Your task to perform on an android device: turn off priority inbox in the gmail app Image 0: 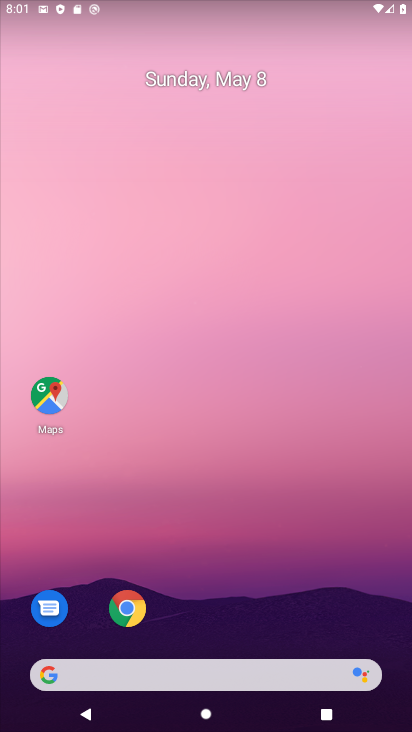
Step 0: drag from (211, 667) to (300, 139)
Your task to perform on an android device: turn off priority inbox in the gmail app Image 1: 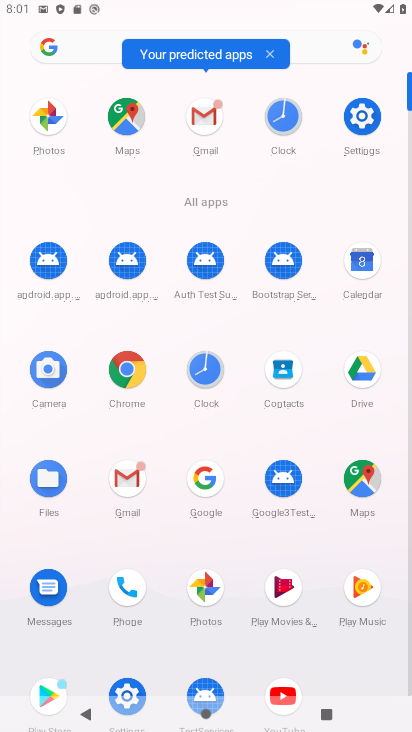
Step 1: click (209, 126)
Your task to perform on an android device: turn off priority inbox in the gmail app Image 2: 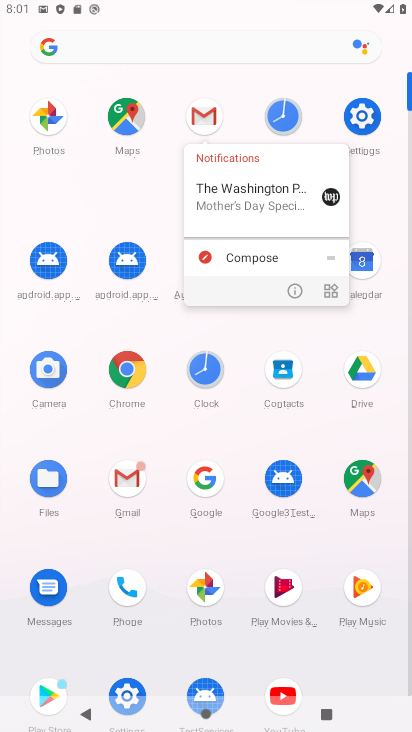
Step 2: click (209, 127)
Your task to perform on an android device: turn off priority inbox in the gmail app Image 3: 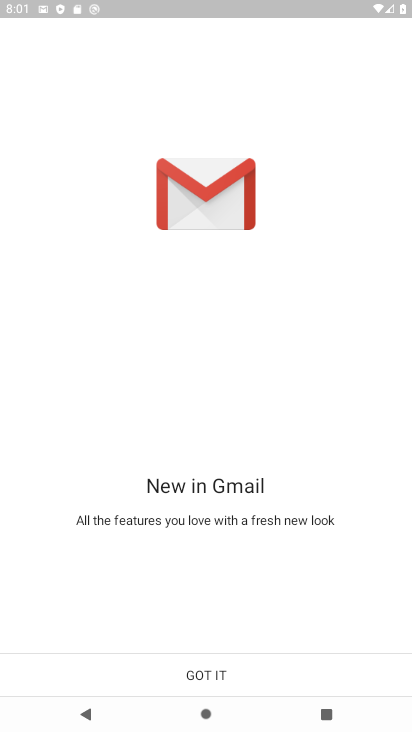
Step 3: click (220, 671)
Your task to perform on an android device: turn off priority inbox in the gmail app Image 4: 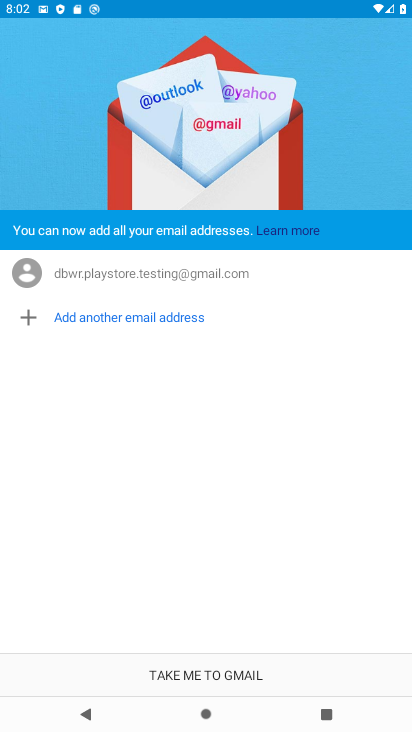
Step 4: click (241, 671)
Your task to perform on an android device: turn off priority inbox in the gmail app Image 5: 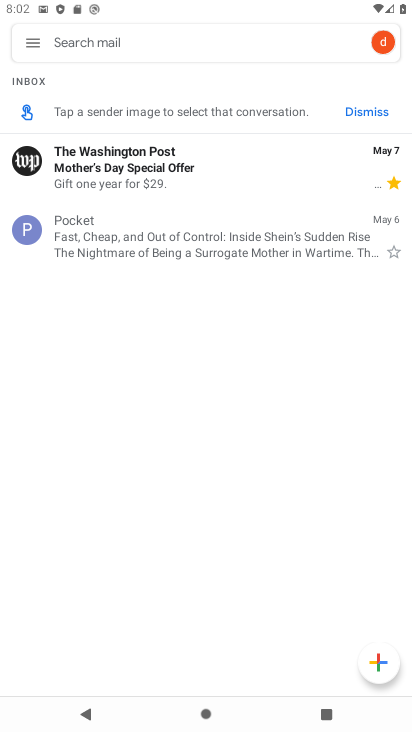
Step 5: click (28, 41)
Your task to perform on an android device: turn off priority inbox in the gmail app Image 6: 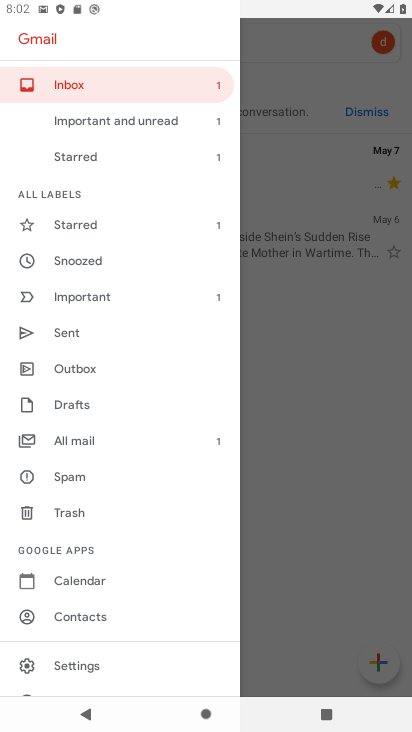
Step 6: click (83, 665)
Your task to perform on an android device: turn off priority inbox in the gmail app Image 7: 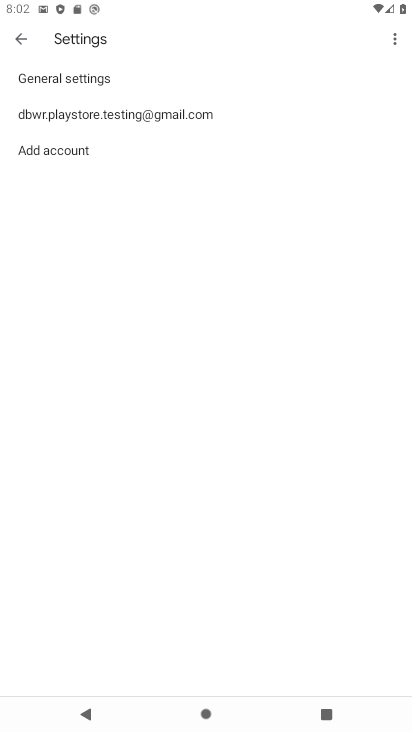
Step 7: click (184, 105)
Your task to perform on an android device: turn off priority inbox in the gmail app Image 8: 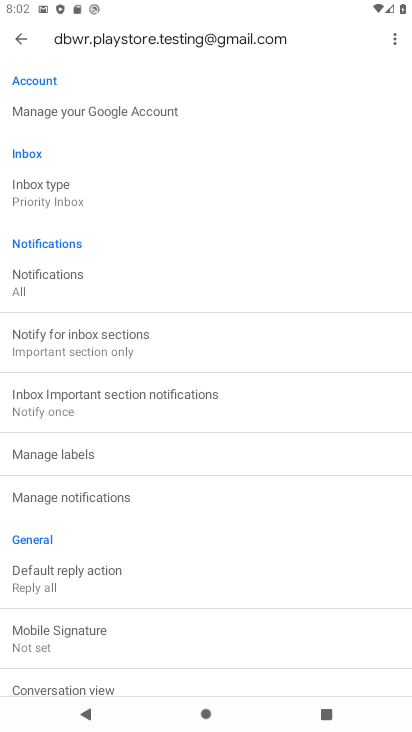
Step 8: click (46, 196)
Your task to perform on an android device: turn off priority inbox in the gmail app Image 9: 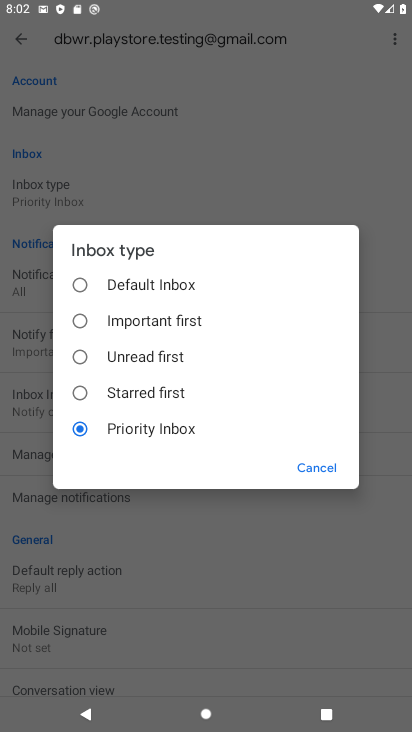
Step 9: click (84, 282)
Your task to perform on an android device: turn off priority inbox in the gmail app Image 10: 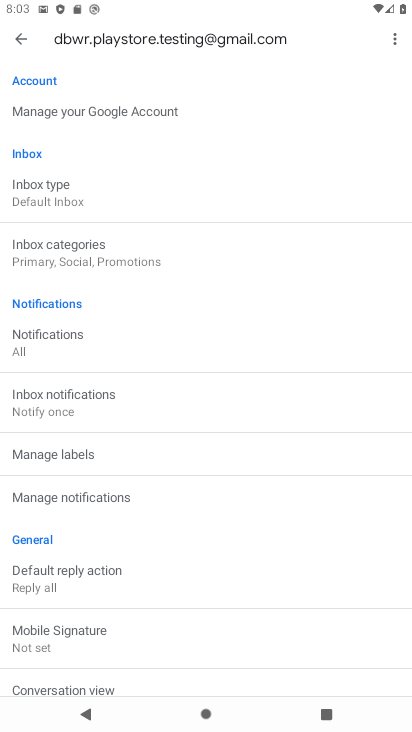
Step 10: task complete